Your task to perform on an android device: Clear the cart on amazon. Search for usb-a on amazon, select the first entry, and add it to the cart. Image 0: 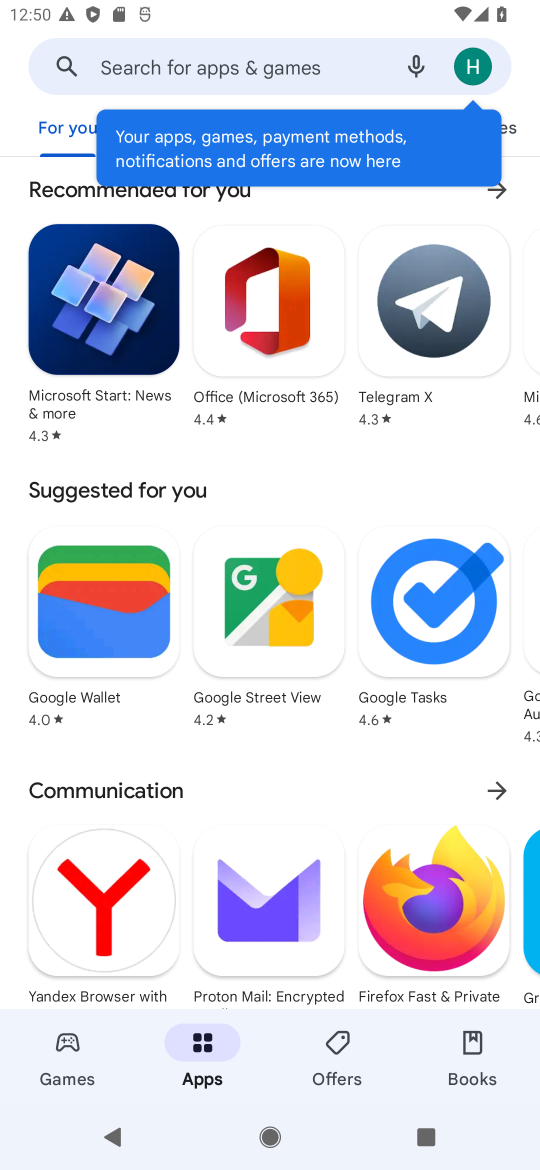
Step 0: press home button
Your task to perform on an android device: Clear the cart on amazon. Search for usb-a on amazon, select the first entry, and add it to the cart. Image 1: 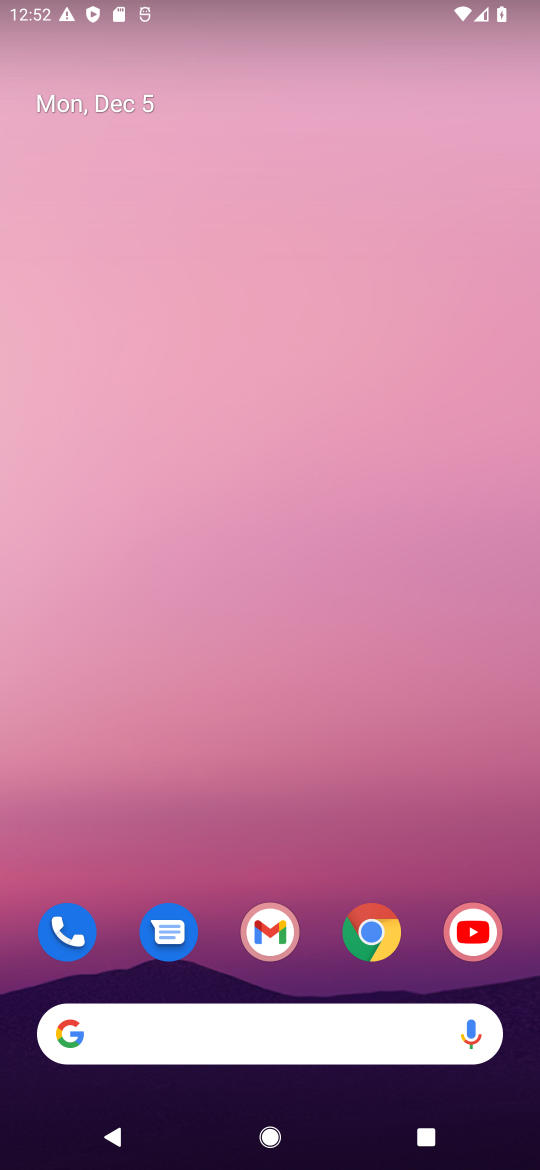
Step 1: click (366, 936)
Your task to perform on an android device: Clear the cart on amazon. Search for usb-a on amazon, select the first entry, and add it to the cart. Image 2: 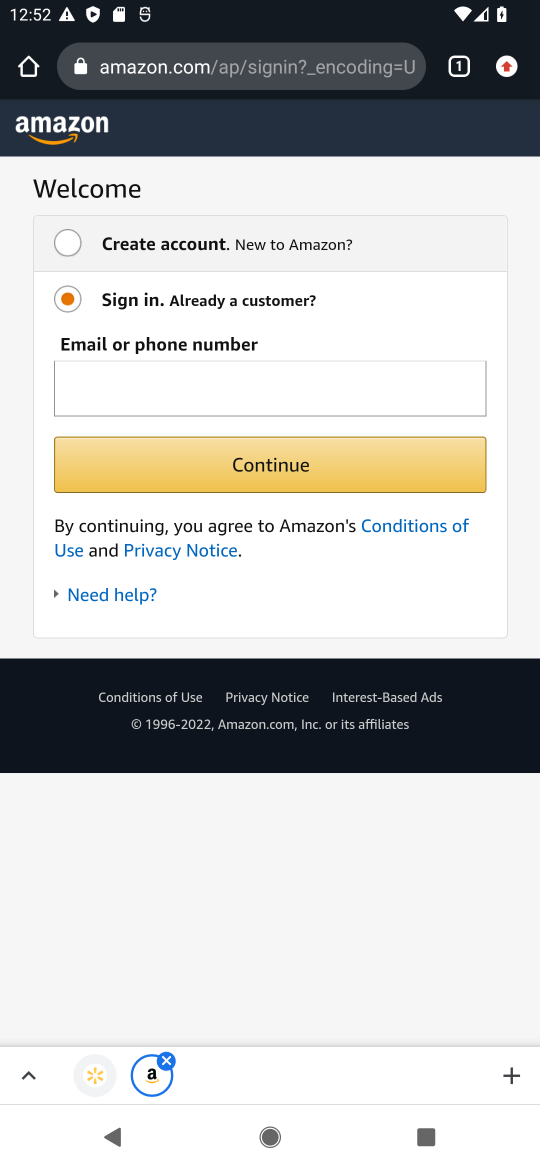
Step 2: click (32, 122)
Your task to perform on an android device: Clear the cart on amazon. Search for usb-a on amazon, select the first entry, and add it to the cart. Image 3: 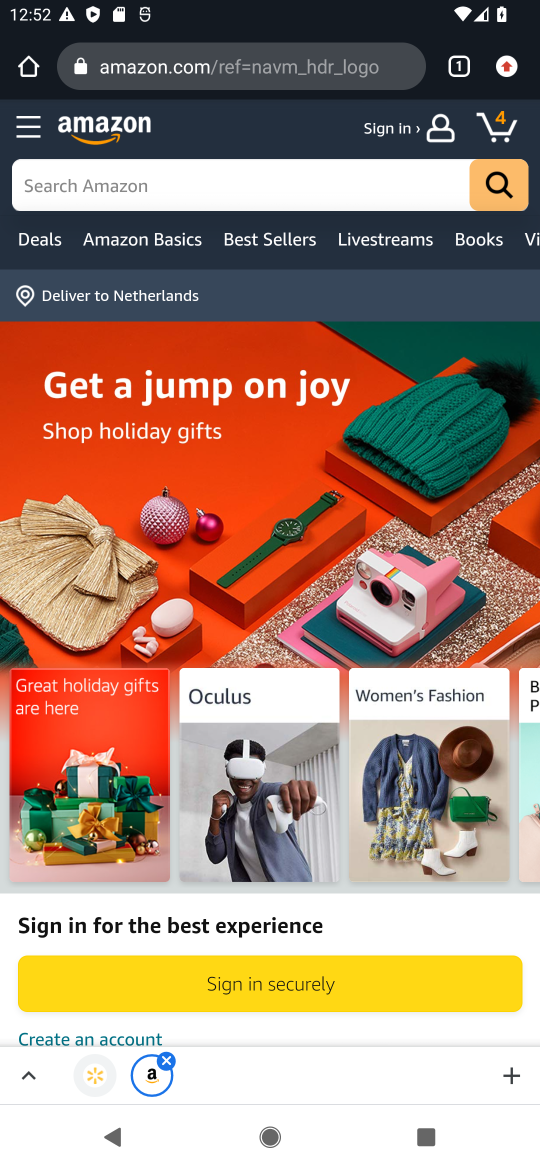
Step 3: click (496, 128)
Your task to perform on an android device: Clear the cart on amazon. Search for usb-a on amazon, select the first entry, and add it to the cart. Image 4: 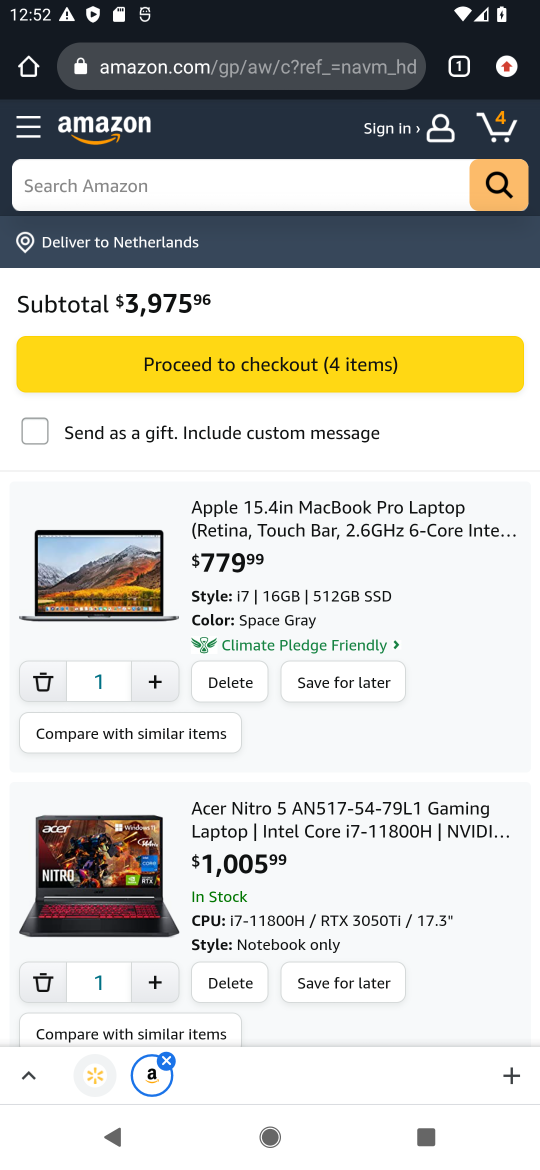
Step 4: click (43, 678)
Your task to perform on an android device: Clear the cart on amazon. Search for usb-a on amazon, select the first entry, and add it to the cart. Image 5: 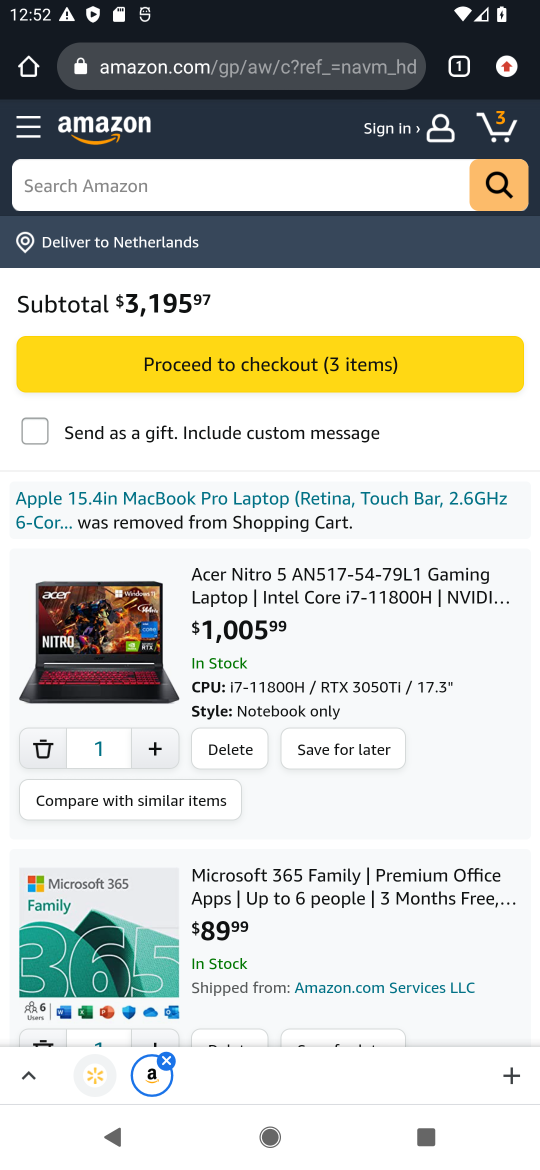
Step 5: click (215, 745)
Your task to perform on an android device: Clear the cart on amazon. Search for usb-a on amazon, select the first entry, and add it to the cart. Image 6: 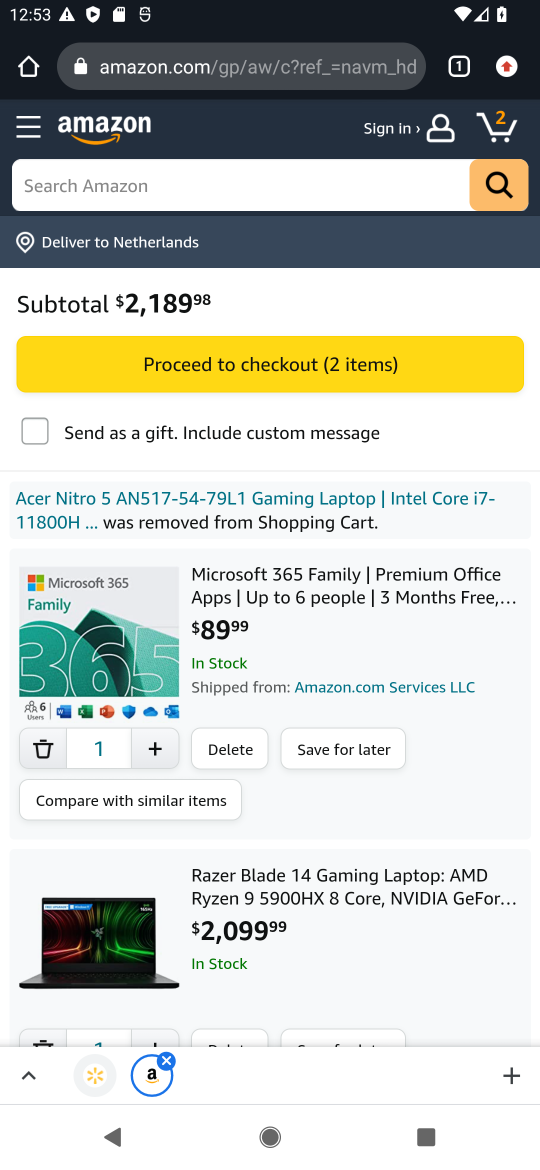
Step 6: click (215, 745)
Your task to perform on an android device: Clear the cart on amazon. Search for usb-a on amazon, select the first entry, and add it to the cart. Image 7: 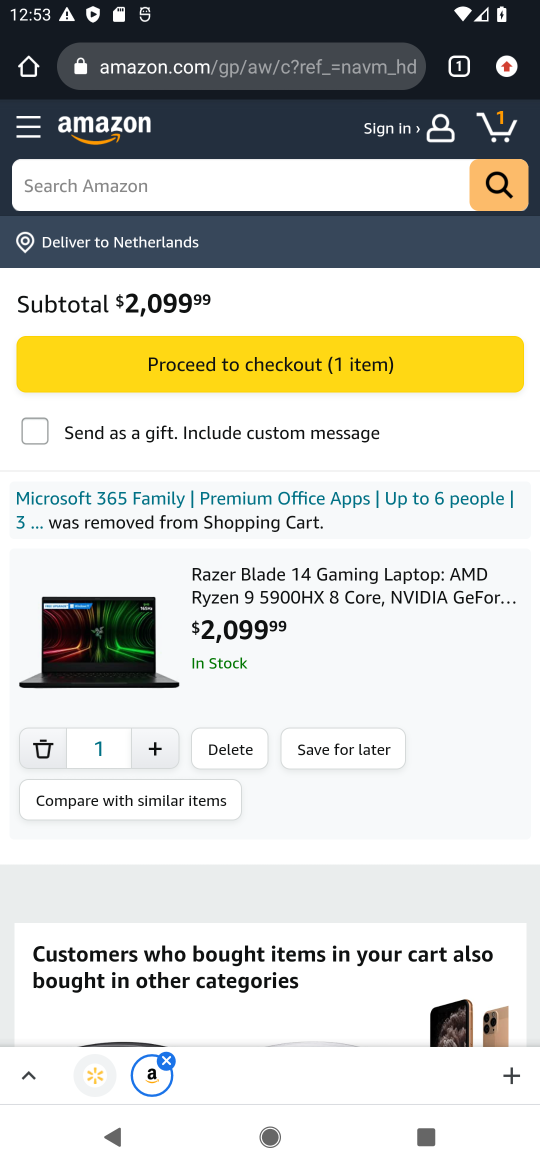
Step 7: click (215, 745)
Your task to perform on an android device: Clear the cart on amazon. Search for usb-a on amazon, select the first entry, and add it to the cart. Image 8: 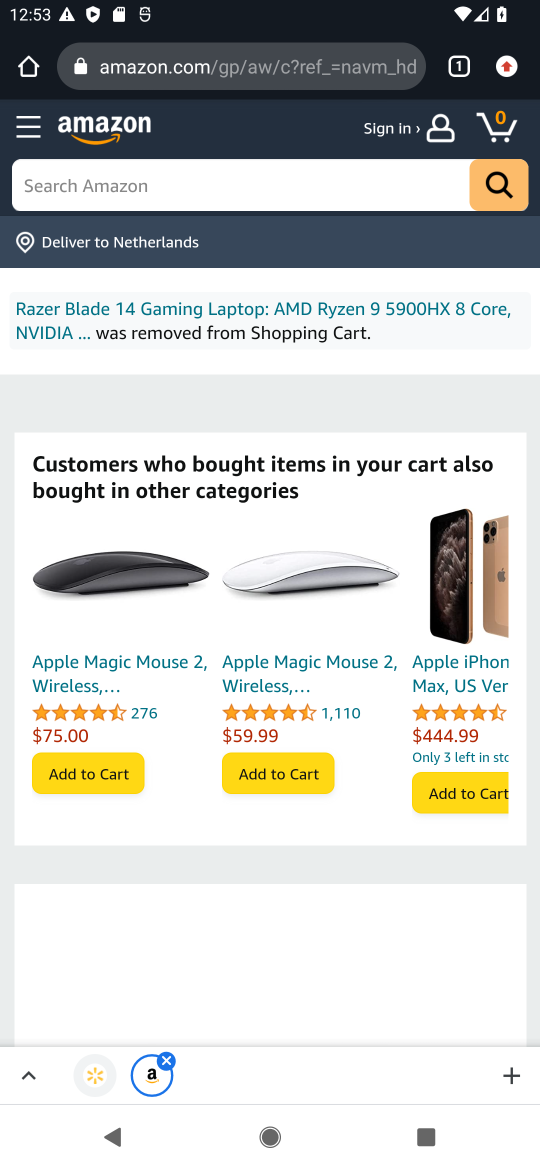
Step 8: click (253, 186)
Your task to perform on an android device: Clear the cart on amazon. Search for usb-a on amazon, select the first entry, and add it to the cart. Image 9: 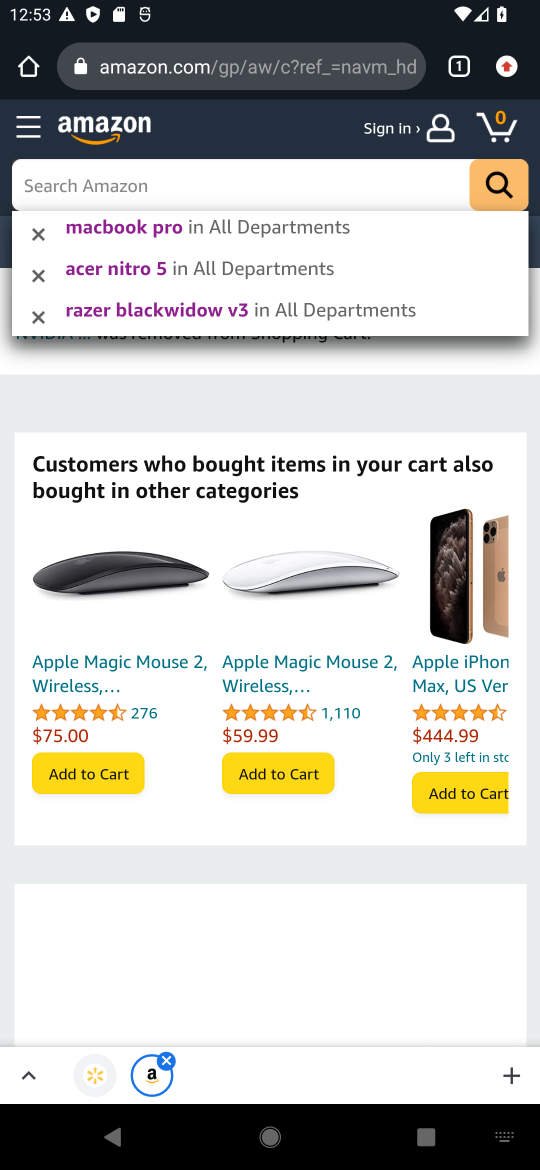
Step 9: type "usb-a"
Your task to perform on an android device: Clear the cart on amazon. Search for usb-a on amazon, select the first entry, and add it to the cart. Image 10: 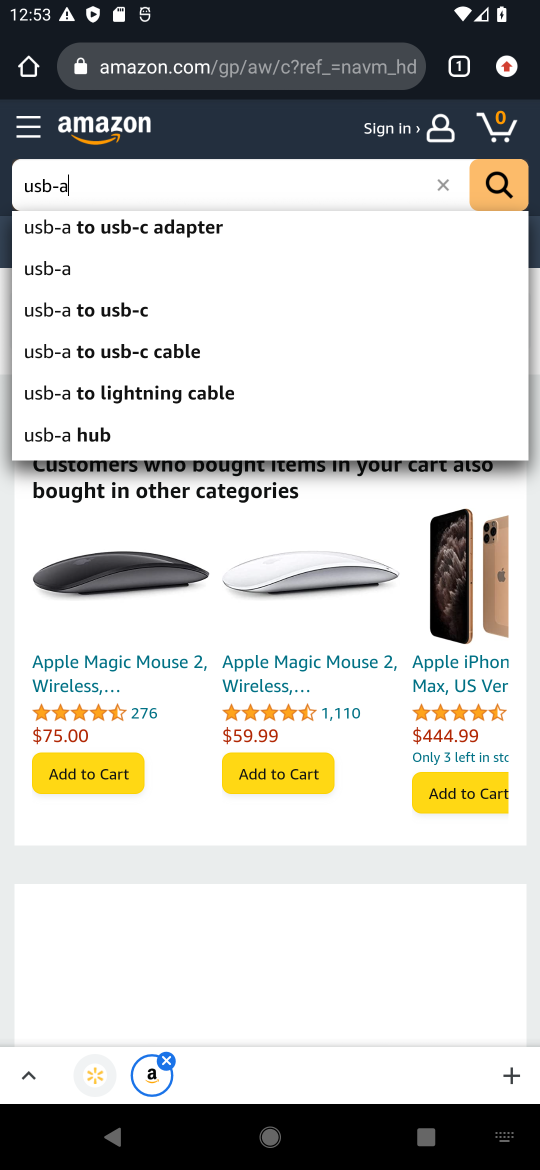
Step 10: click (73, 267)
Your task to perform on an android device: Clear the cart on amazon. Search for usb-a on amazon, select the first entry, and add it to the cart. Image 11: 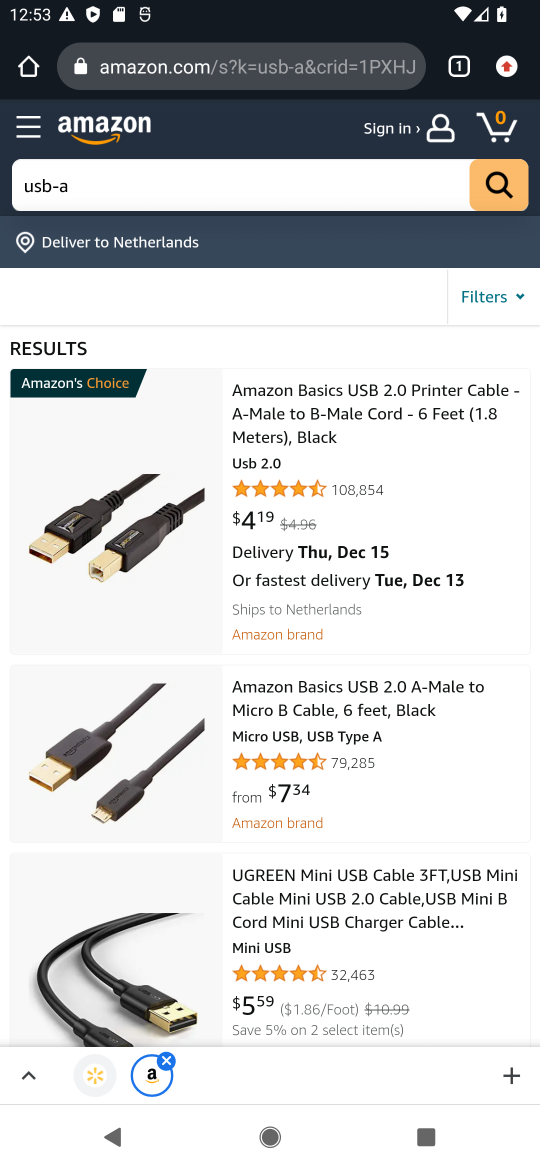
Step 11: click (133, 550)
Your task to perform on an android device: Clear the cart on amazon. Search for usb-a on amazon, select the first entry, and add it to the cart. Image 12: 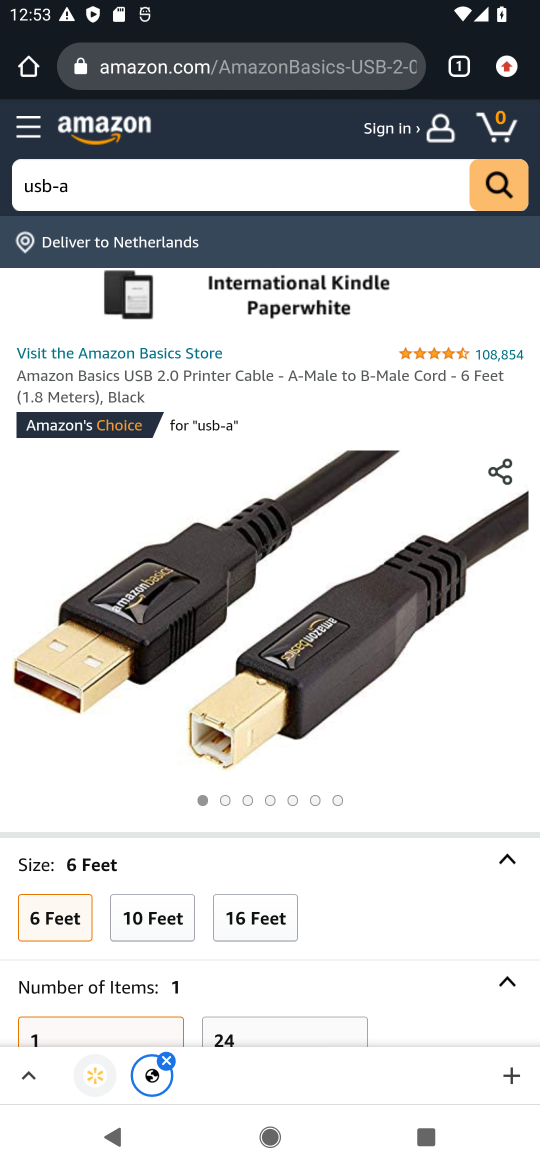
Step 12: drag from (423, 1025) to (304, 320)
Your task to perform on an android device: Clear the cart on amazon. Search for usb-a on amazon, select the first entry, and add it to the cart. Image 13: 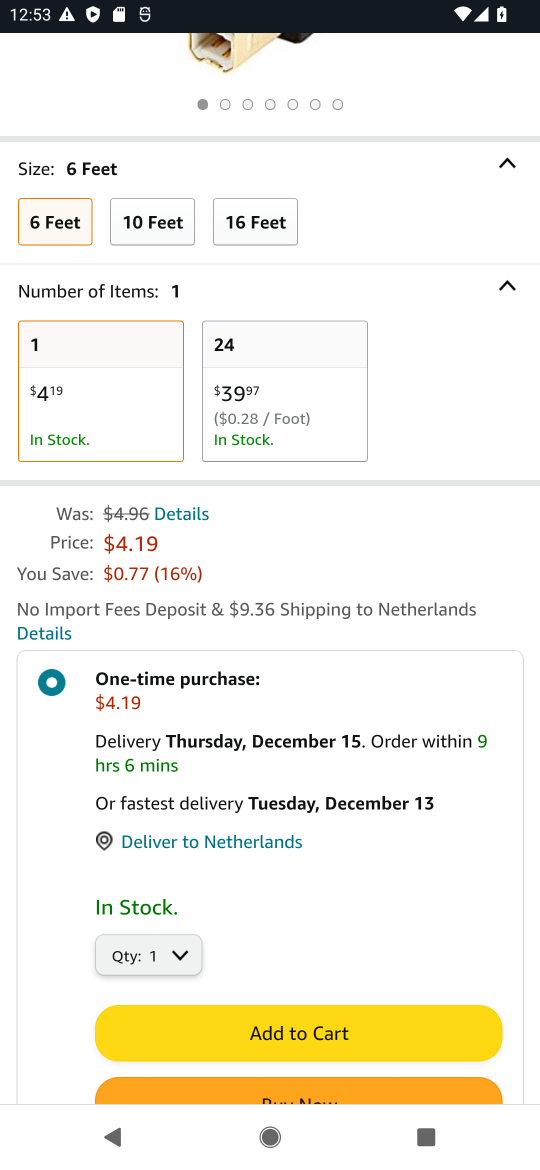
Step 13: click (306, 1036)
Your task to perform on an android device: Clear the cart on amazon. Search for usb-a on amazon, select the first entry, and add it to the cart. Image 14: 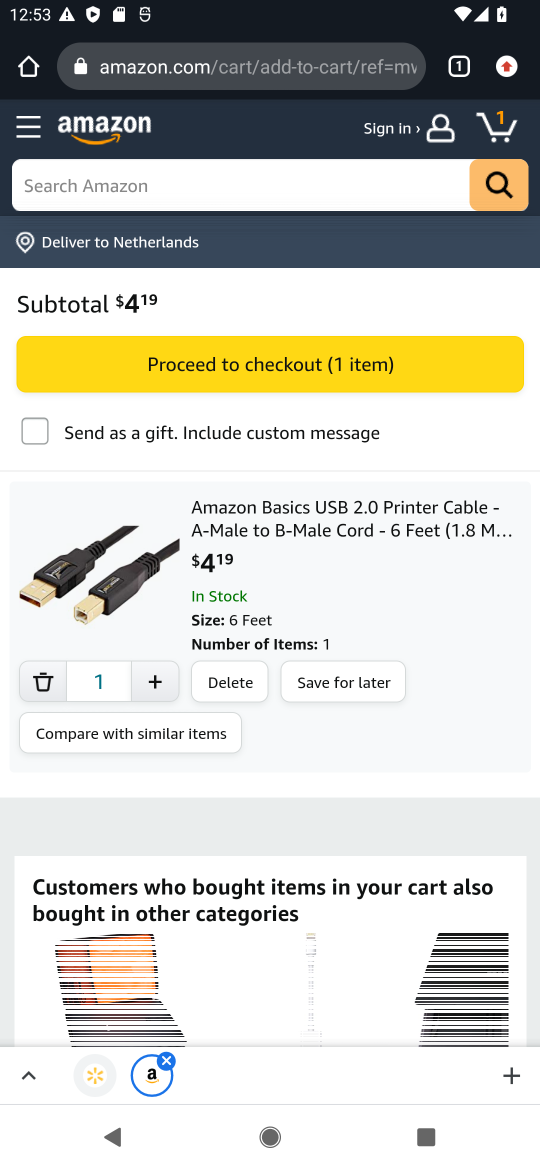
Step 14: click (229, 361)
Your task to perform on an android device: Clear the cart on amazon. Search for usb-a on amazon, select the first entry, and add it to the cart. Image 15: 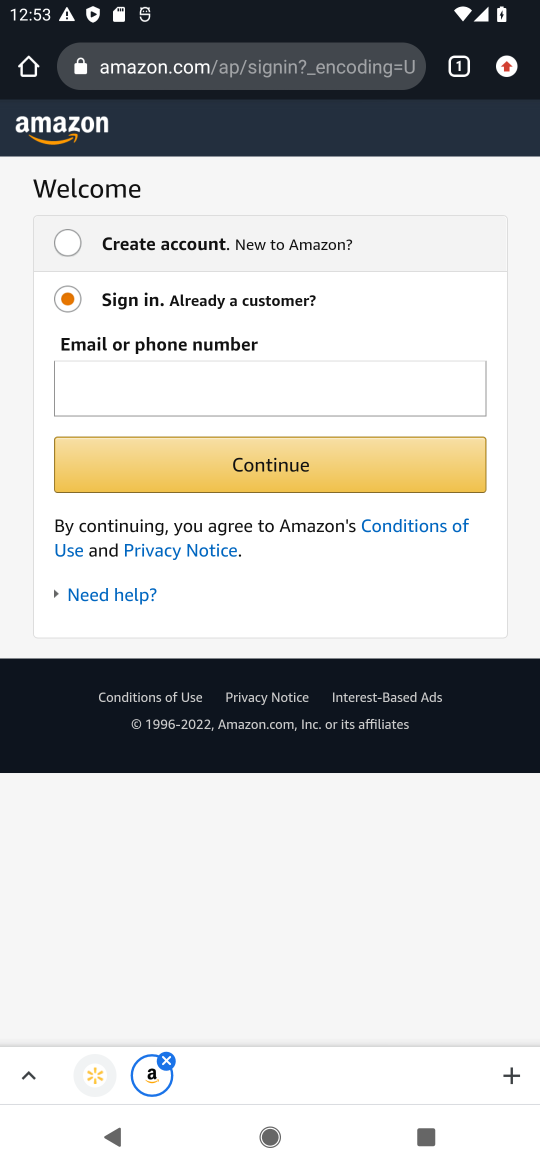
Step 15: task complete